Your task to perform on an android device: Open Reddit.com Image 0: 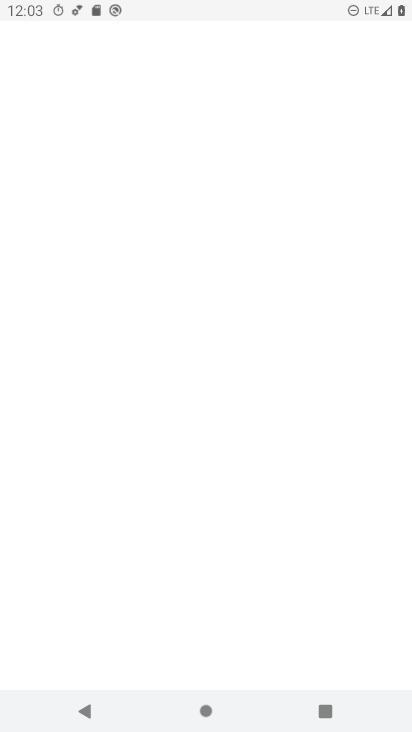
Step 0: drag from (216, 643) to (200, 160)
Your task to perform on an android device: Open Reddit.com Image 1: 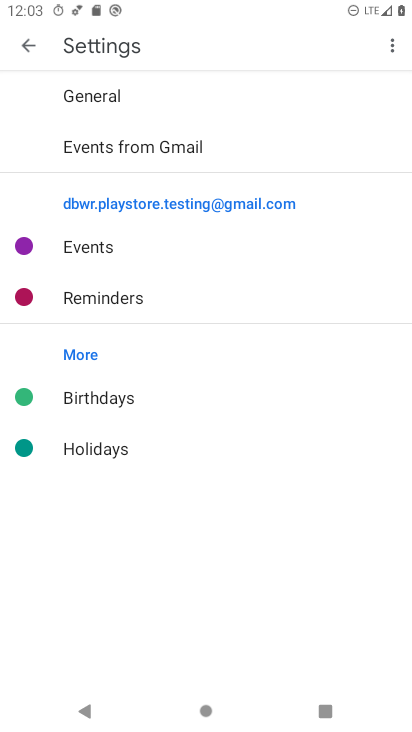
Step 1: press home button
Your task to perform on an android device: Open Reddit.com Image 2: 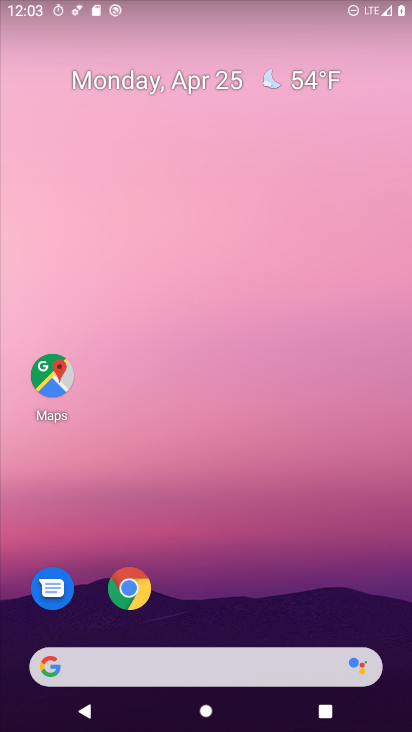
Step 2: drag from (215, 630) to (153, 103)
Your task to perform on an android device: Open Reddit.com Image 3: 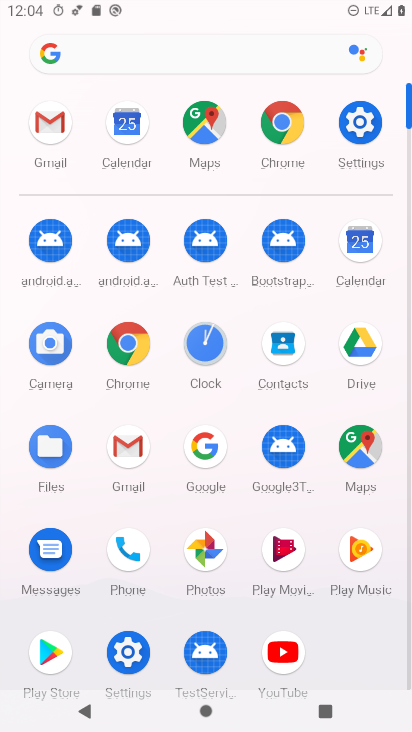
Step 3: click (283, 126)
Your task to perform on an android device: Open Reddit.com Image 4: 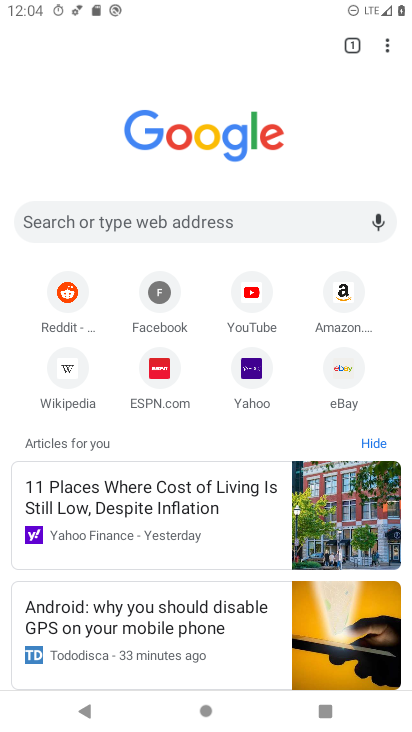
Step 4: click (69, 305)
Your task to perform on an android device: Open Reddit.com Image 5: 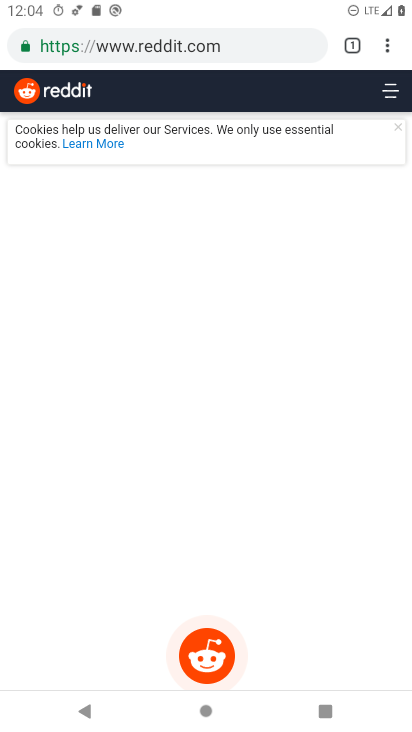
Step 5: task complete